Your task to perform on an android device: Open privacy settings Image 0: 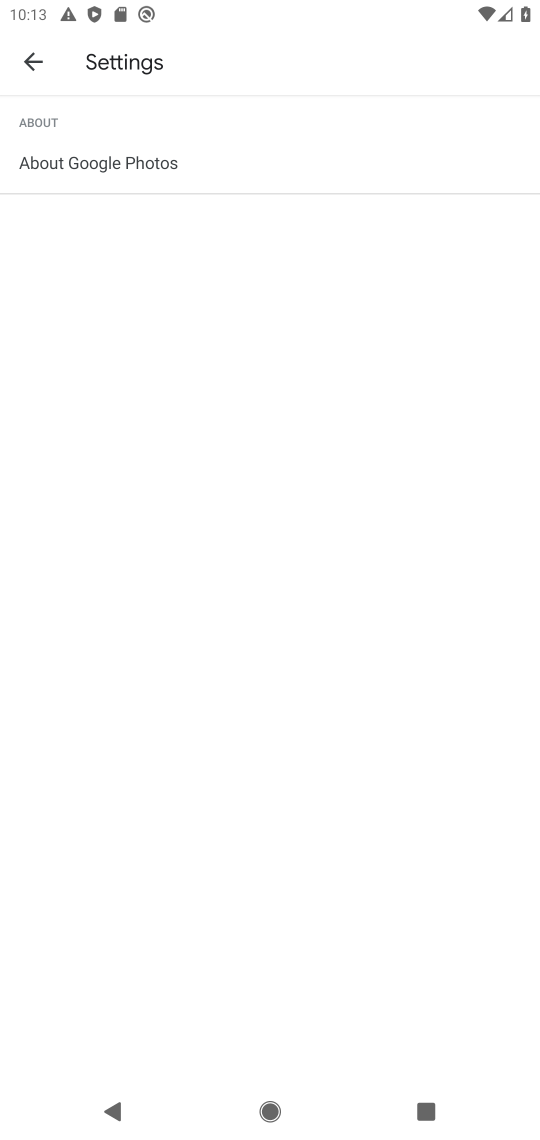
Step 0: press home button
Your task to perform on an android device: Open privacy settings Image 1: 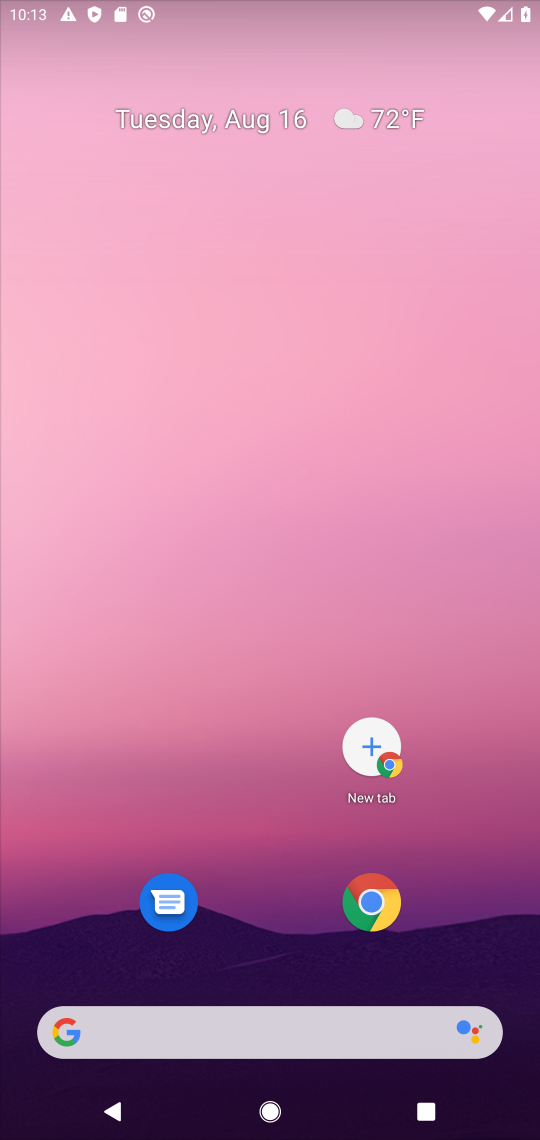
Step 1: drag from (269, 955) to (304, 436)
Your task to perform on an android device: Open privacy settings Image 2: 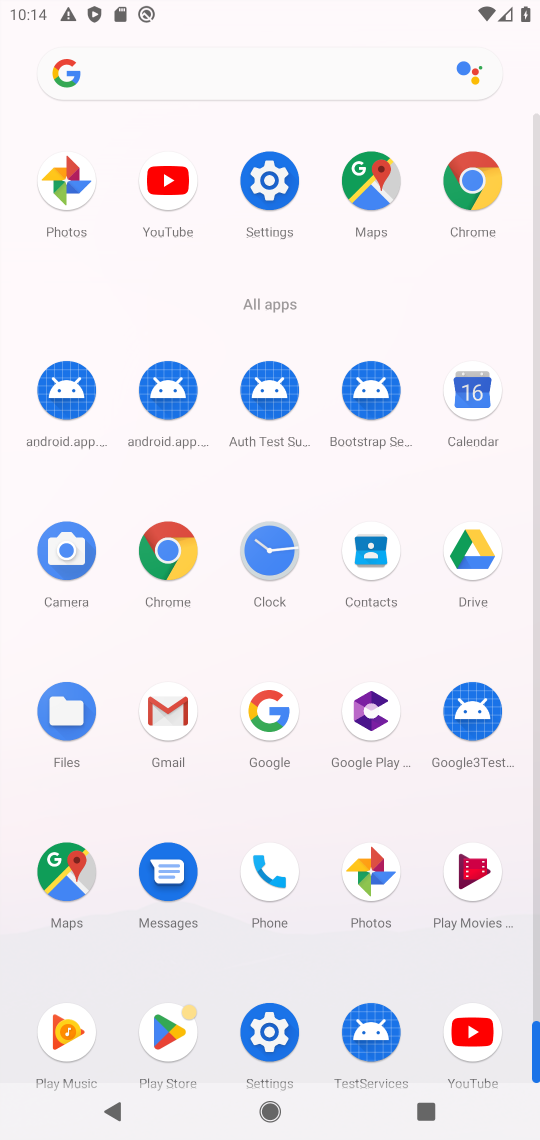
Step 2: click (286, 992)
Your task to perform on an android device: Open privacy settings Image 3: 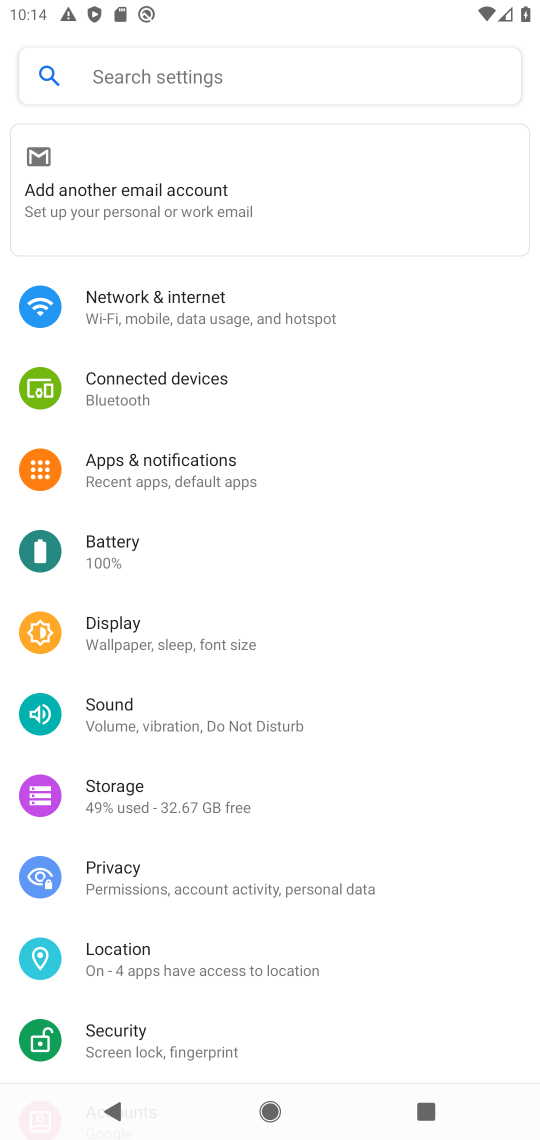
Step 3: click (108, 856)
Your task to perform on an android device: Open privacy settings Image 4: 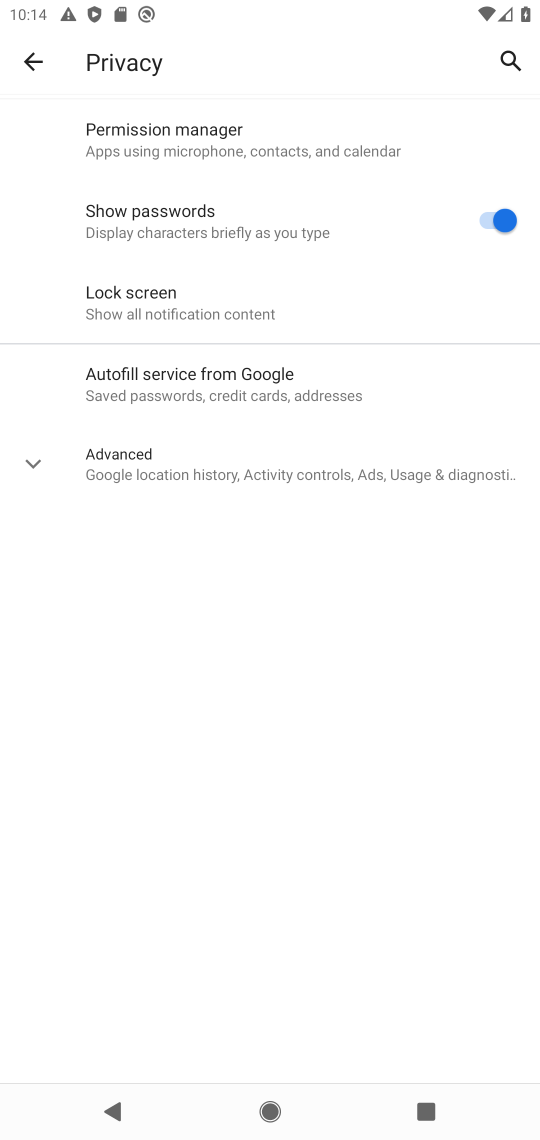
Step 4: click (127, 449)
Your task to perform on an android device: Open privacy settings Image 5: 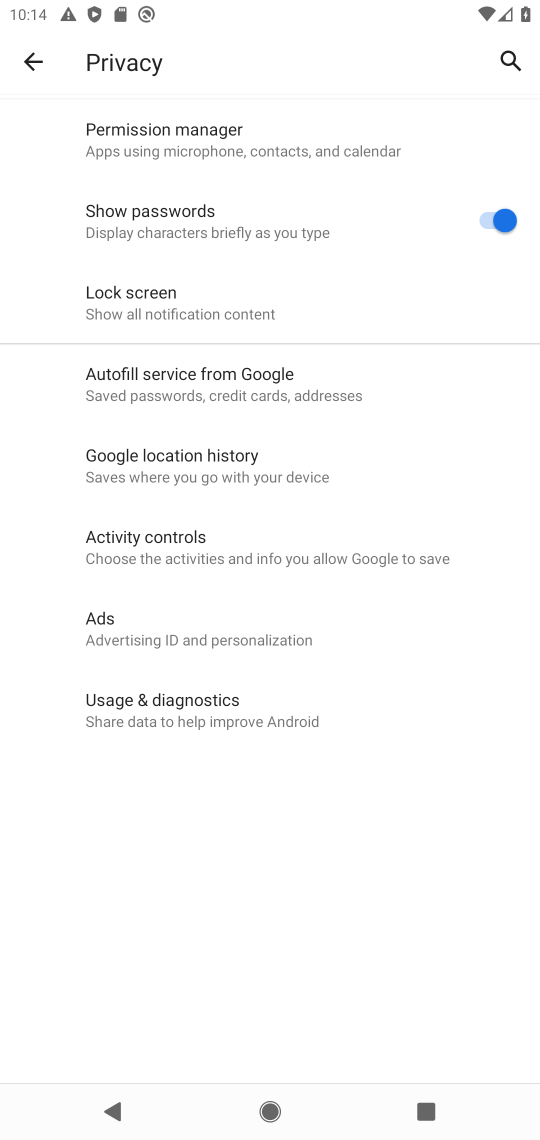
Step 5: task complete